Your task to perform on an android device: Go to Amazon Image 0: 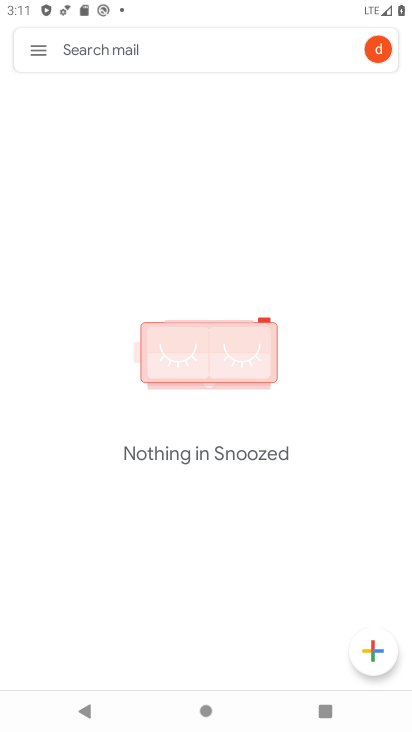
Step 0: press home button
Your task to perform on an android device: Go to Amazon Image 1: 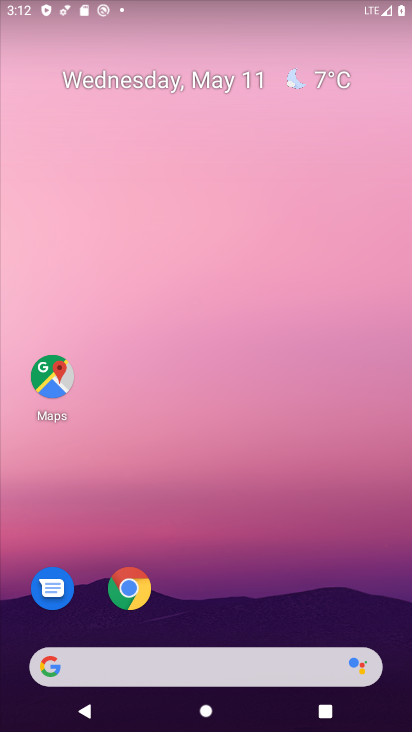
Step 1: click (128, 594)
Your task to perform on an android device: Go to Amazon Image 2: 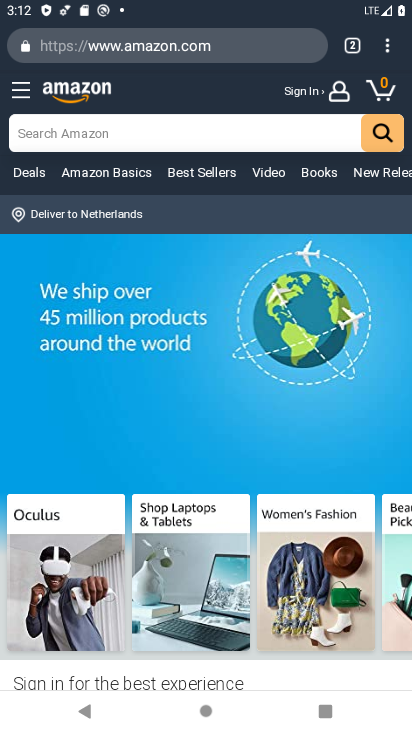
Step 2: task complete